Your task to perform on an android device: Search for "usb-b" on ebay, select the first entry, add it to the cart, then select checkout. Image 0: 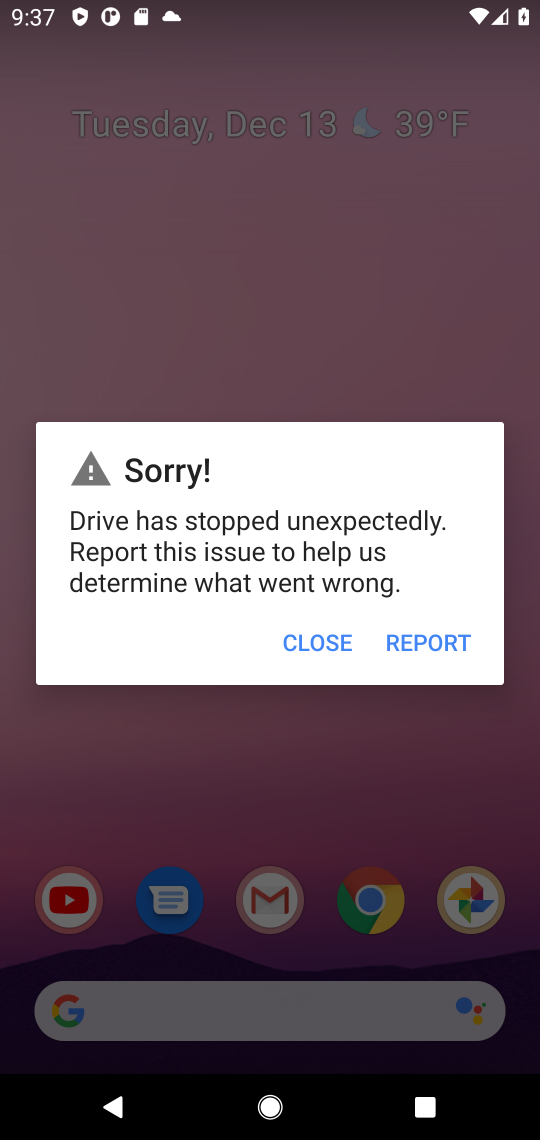
Step 0: task complete